Your task to perform on an android device: check data usage Image 0: 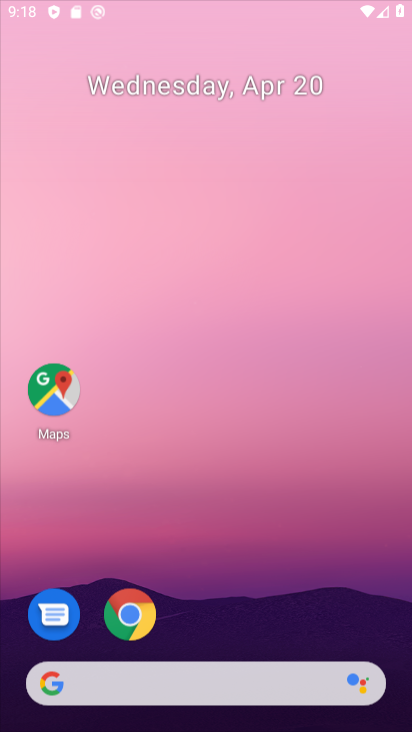
Step 0: drag from (211, 1) to (233, 28)
Your task to perform on an android device: check data usage Image 1: 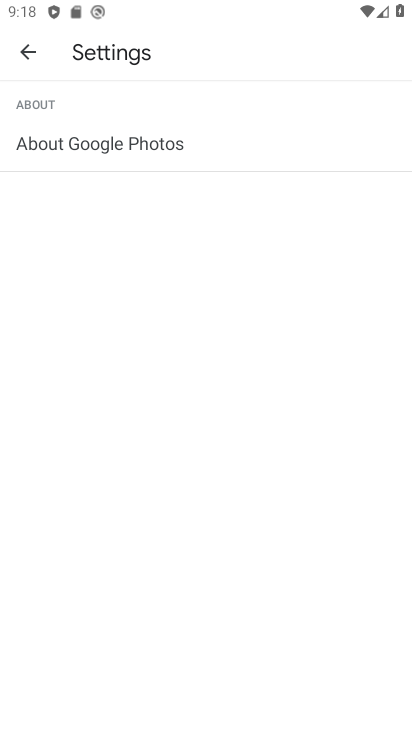
Step 1: press home button
Your task to perform on an android device: check data usage Image 2: 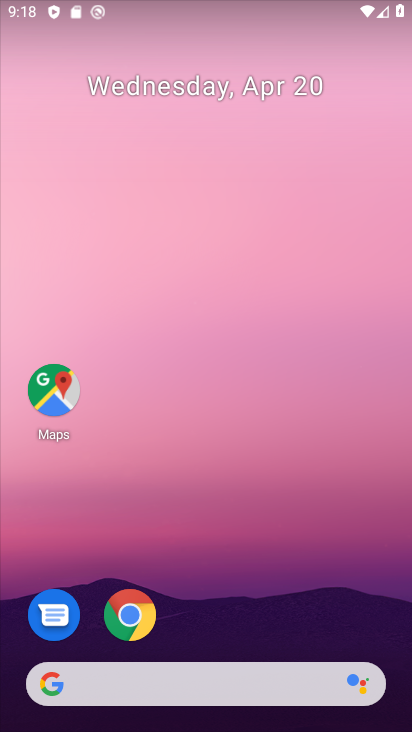
Step 2: drag from (223, 580) to (199, 14)
Your task to perform on an android device: check data usage Image 3: 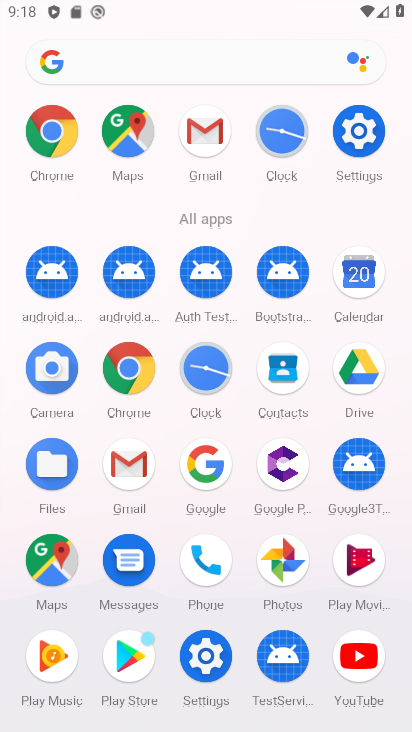
Step 3: click (354, 134)
Your task to perform on an android device: check data usage Image 4: 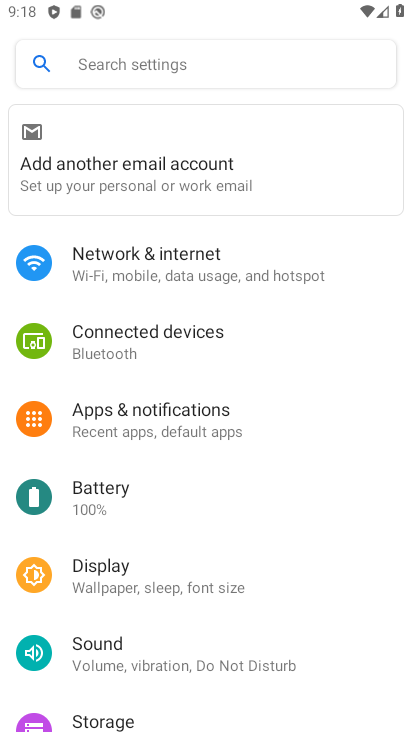
Step 4: click (158, 255)
Your task to perform on an android device: check data usage Image 5: 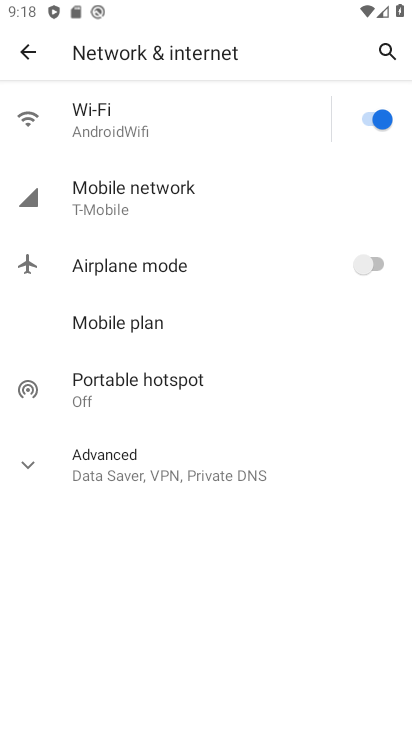
Step 5: click (122, 184)
Your task to perform on an android device: check data usage Image 6: 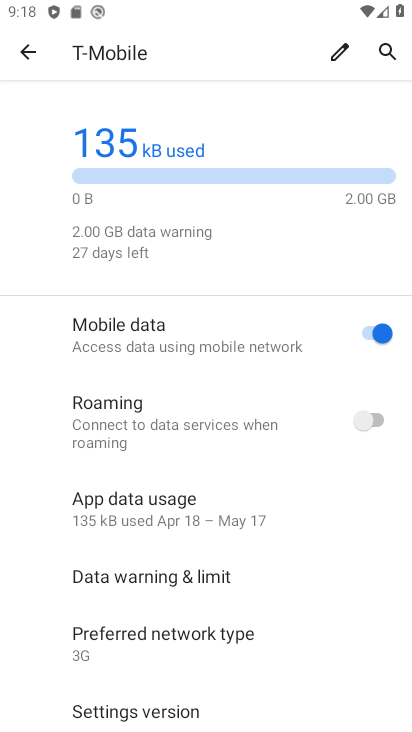
Step 6: task complete